Your task to perform on an android device: toggle improve location accuracy Image 0: 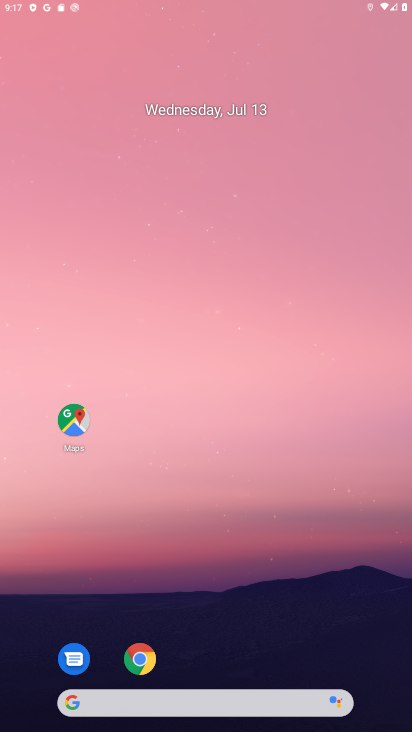
Step 0: press home button
Your task to perform on an android device: toggle improve location accuracy Image 1: 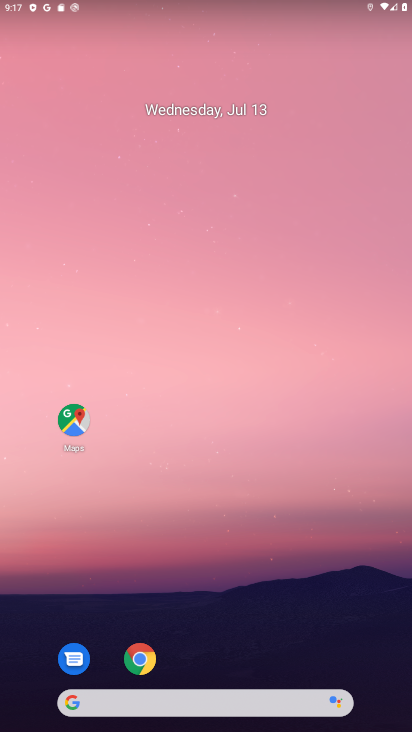
Step 1: drag from (247, 634) to (178, 299)
Your task to perform on an android device: toggle improve location accuracy Image 2: 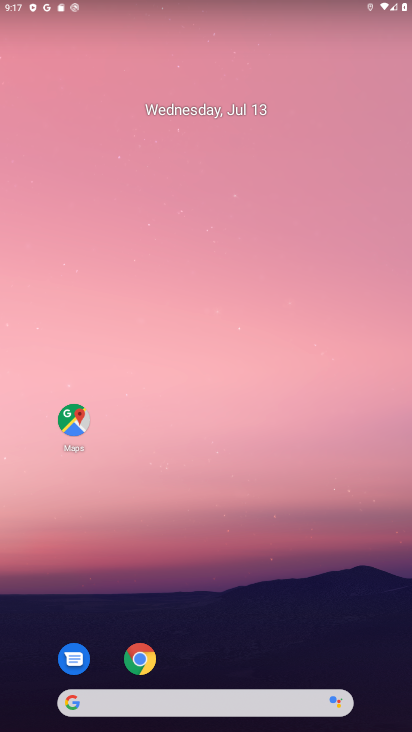
Step 2: drag from (223, 625) to (280, 99)
Your task to perform on an android device: toggle improve location accuracy Image 3: 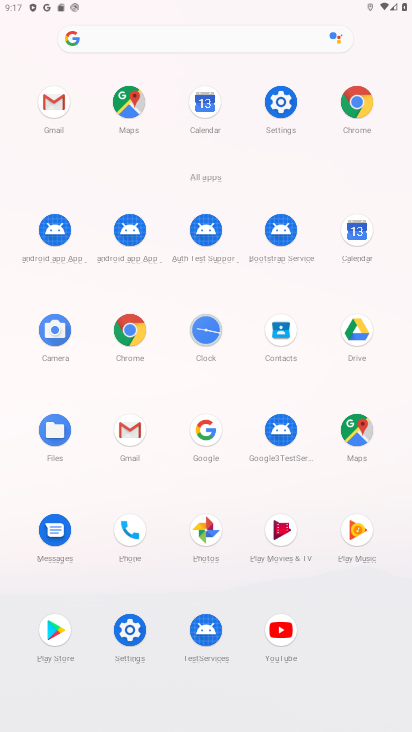
Step 3: click (280, 98)
Your task to perform on an android device: toggle improve location accuracy Image 4: 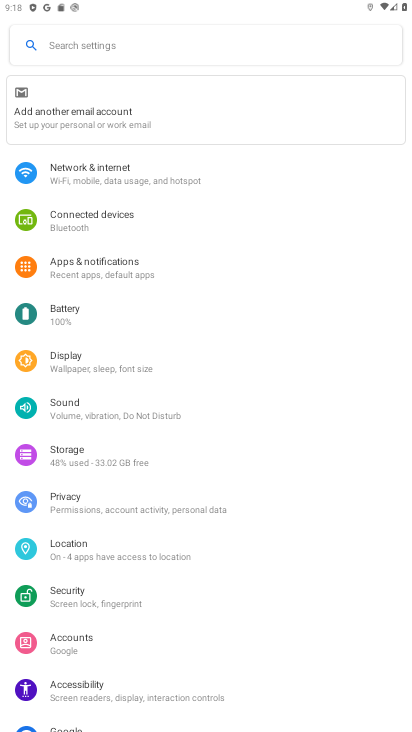
Step 4: click (117, 542)
Your task to perform on an android device: toggle improve location accuracy Image 5: 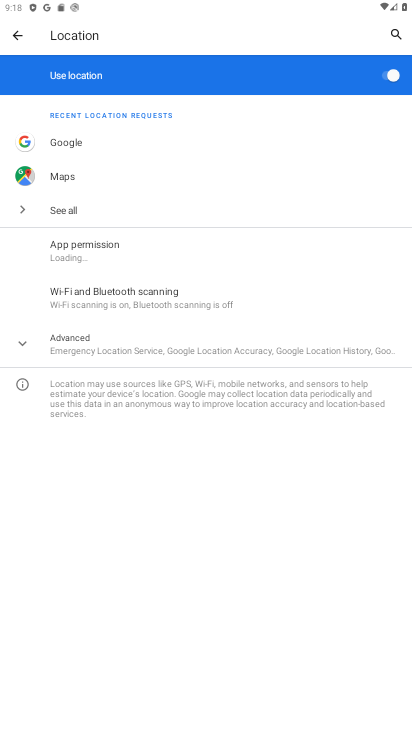
Step 5: click (42, 340)
Your task to perform on an android device: toggle improve location accuracy Image 6: 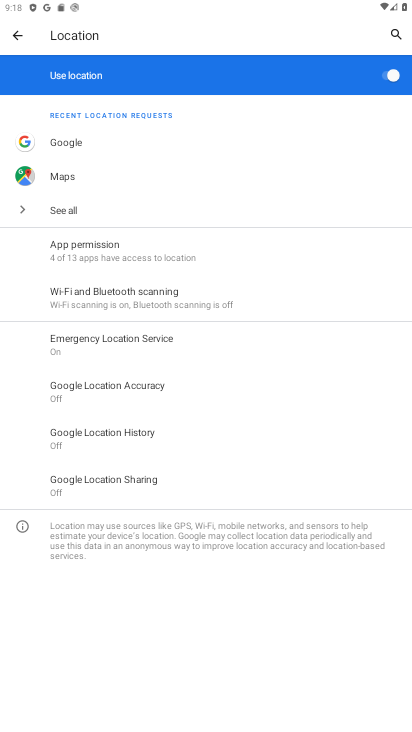
Step 6: click (133, 389)
Your task to perform on an android device: toggle improve location accuracy Image 7: 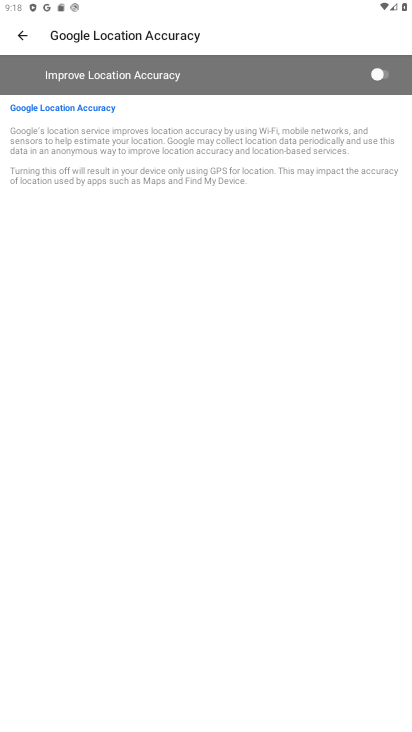
Step 7: click (385, 72)
Your task to perform on an android device: toggle improve location accuracy Image 8: 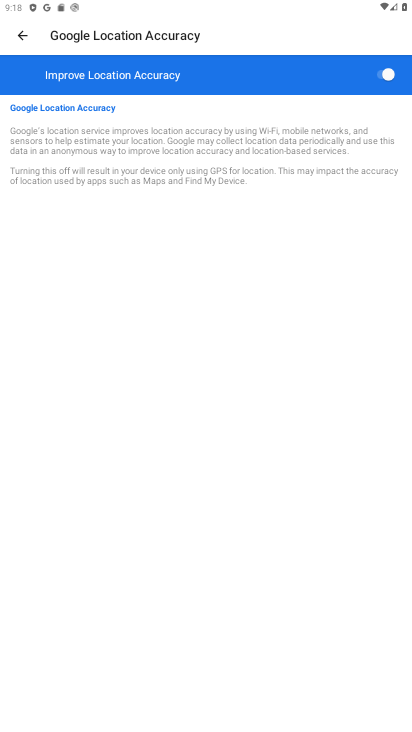
Step 8: task complete